Your task to perform on an android device: visit the assistant section in the google photos Image 0: 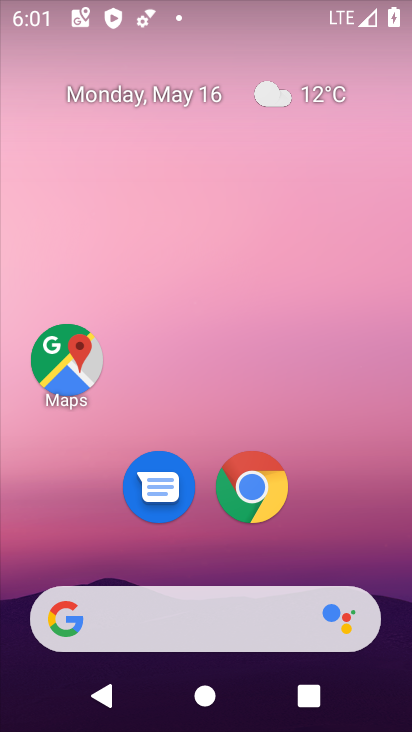
Step 0: press home button
Your task to perform on an android device: visit the assistant section in the google photos Image 1: 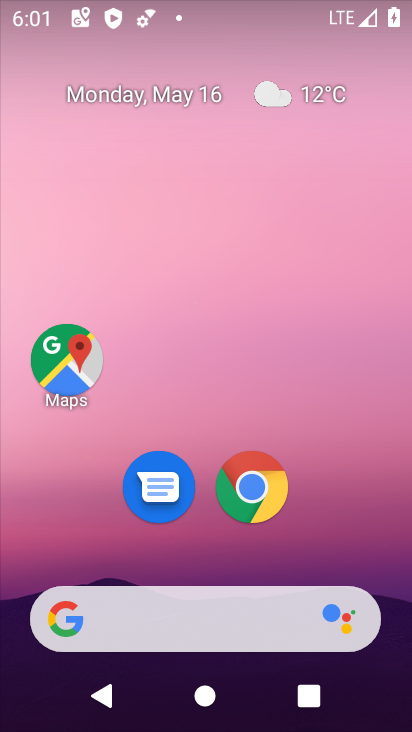
Step 1: drag from (325, 480) to (305, 149)
Your task to perform on an android device: visit the assistant section in the google photos Image 2: 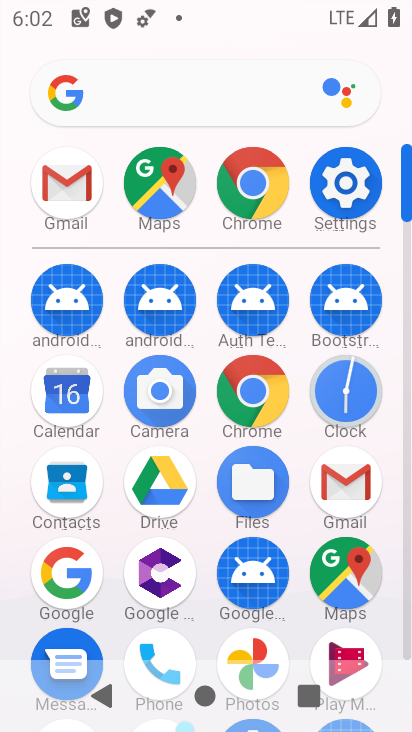
Step 2: click (255, 644)
Your task to perform on an android device: visit the assistant section in the google photos Image 3: 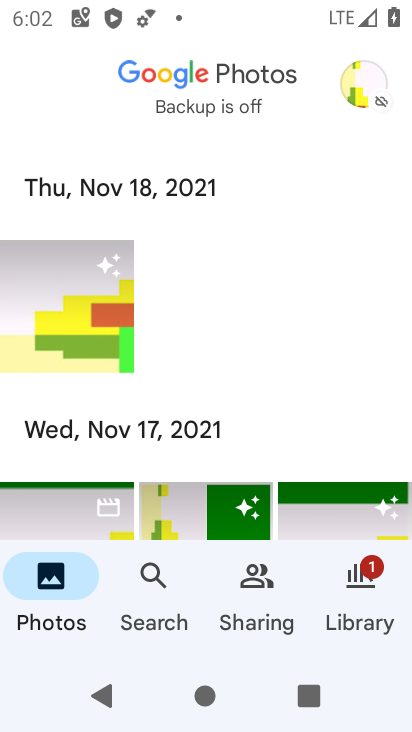
Step 3: click (359, 74)
Your task to perform on an android device: visit the assistant section in the google photos Image 4: 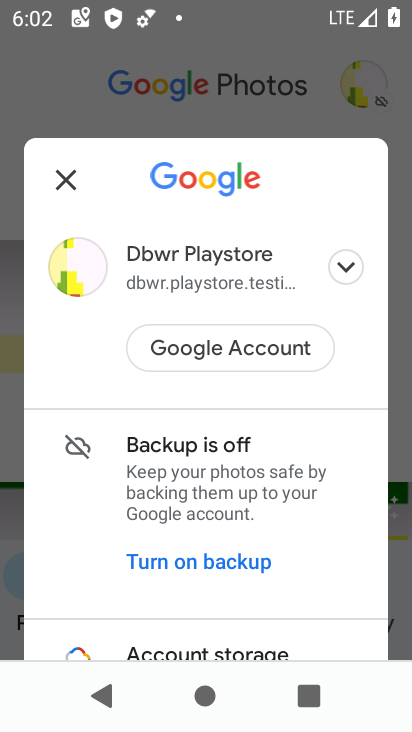
Step 4: drag from (271, 502) to (287, 228)
Your task to perform on an android device: visit the assistant section in the google photos Image 5: 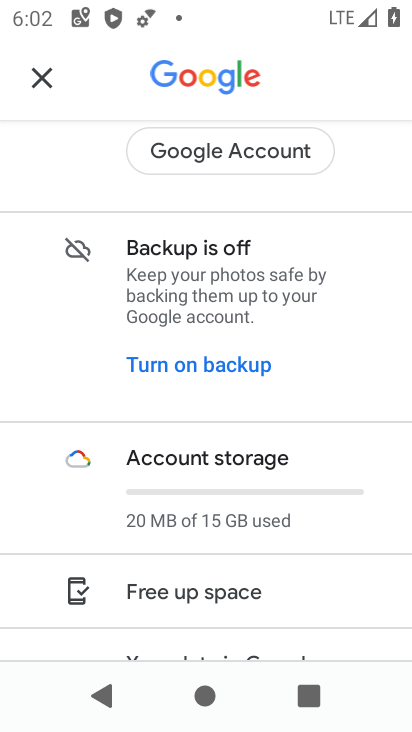
Step 5: click (47, 75)
Your task to perform on an android device: visit the assistant section in the google photos Image 6: 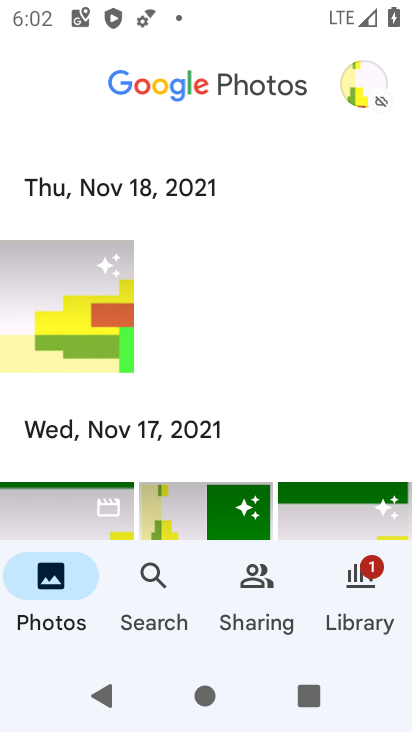
Step 6: click (357, 601)
Your task to perform on an android device: visit the assistant section in the google photos Image 7: 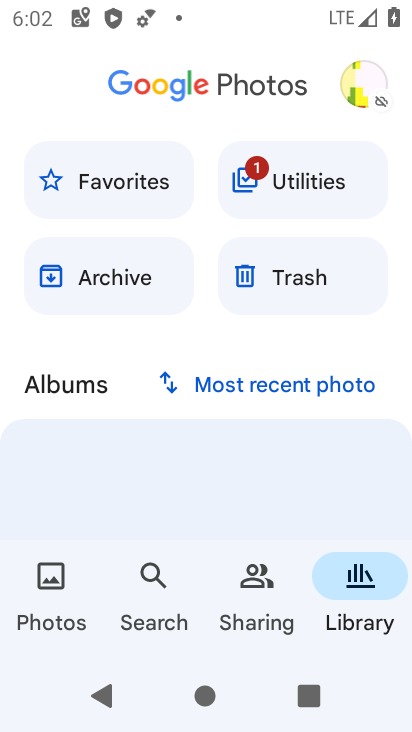
Step 7: click (304, 181)
Your task to perform on an android device: visit the assistant section in the google photos Image 8: 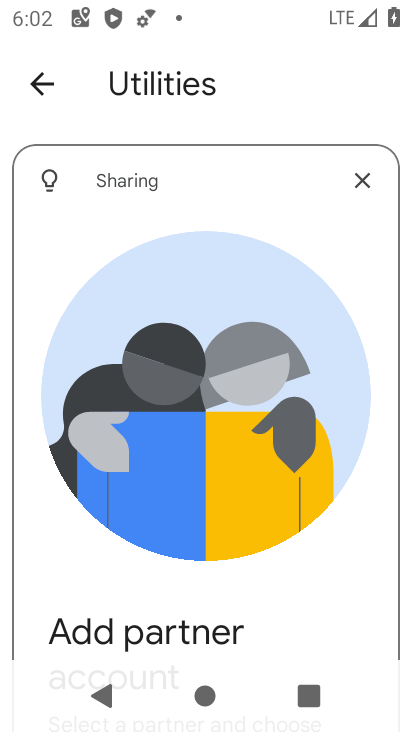
Step 8: task complete